Your task to perform on an android device: refresh tabs in the chrome app Image 0: 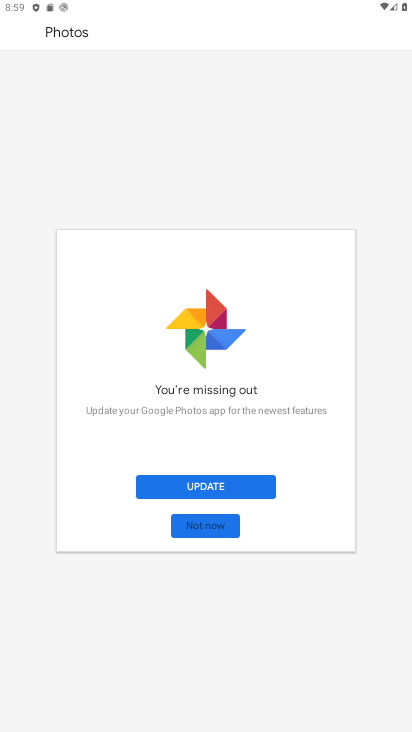
Step 0: press home button
Your task to perform on an android device: refresh tabs in the chrome app Image 1: 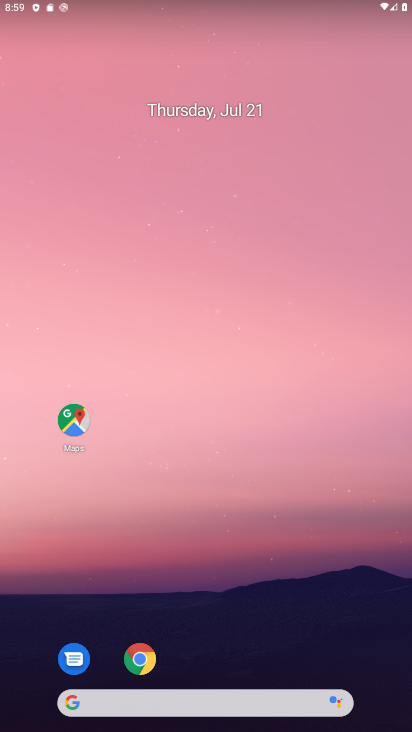
Step 1: drag from (186, 665) to (172, 151)
Your task to perform on an android device: refresh tabs in the chrome app Image 2: 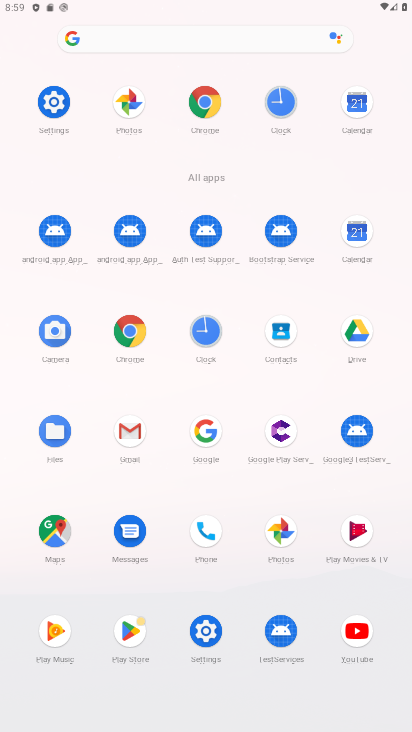
Step 2: click (130, 332)
Your task to perform on an android device: refresh tabs in the chrome app Image 3: 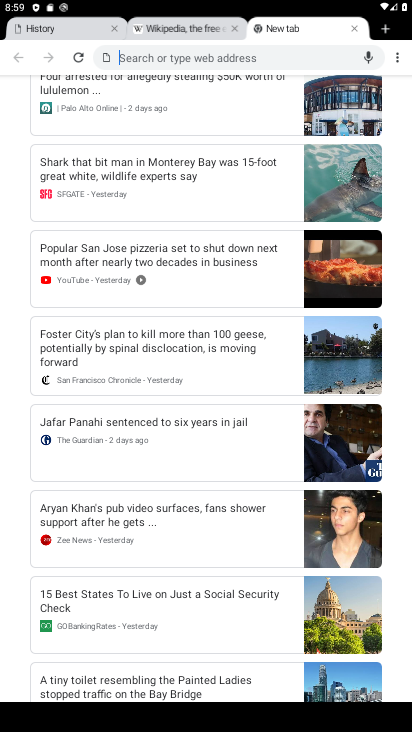
Step 3: click (71, 56)
Your task to perform on an android device: refresh tabs in the chrome app Image 4: 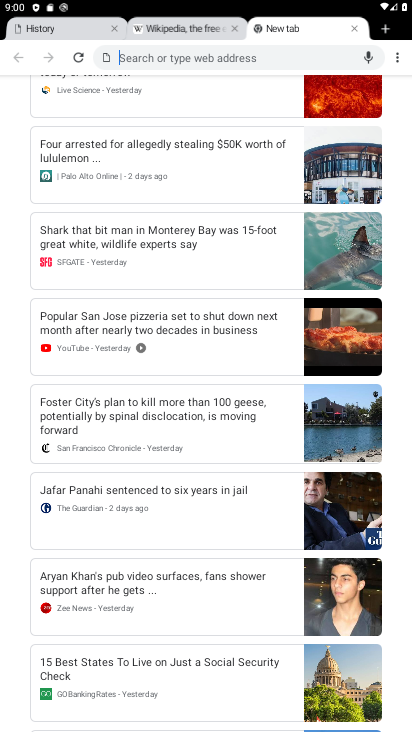
Step 4: task complete